Your task to perform on an android device: Open Google Chrome and open the bookmarks view Image 0: 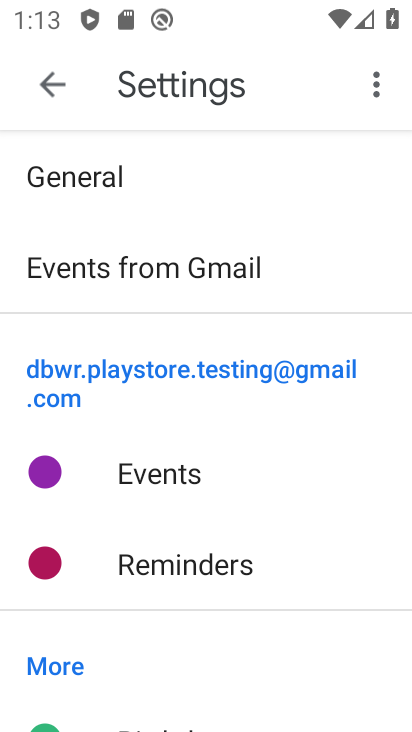
Step 0: press home button
Your task to perform on an android device: Open Google Chrome and open the bookmarks view Image 1: 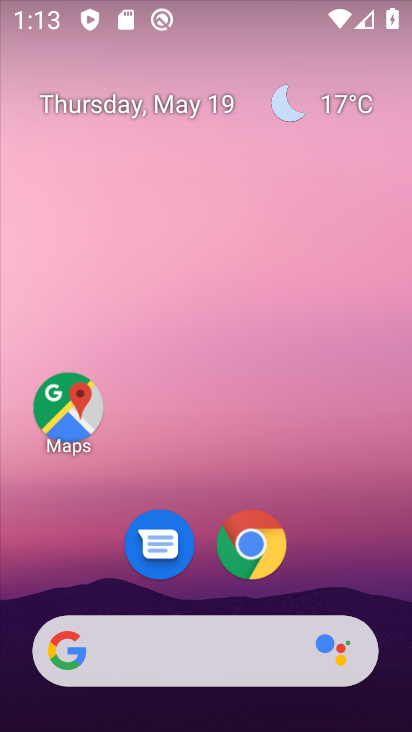
Step 1: click (256, 555)
Your task to perform on an android device: Open Google Chrome and open the bookmarks view Image 2: 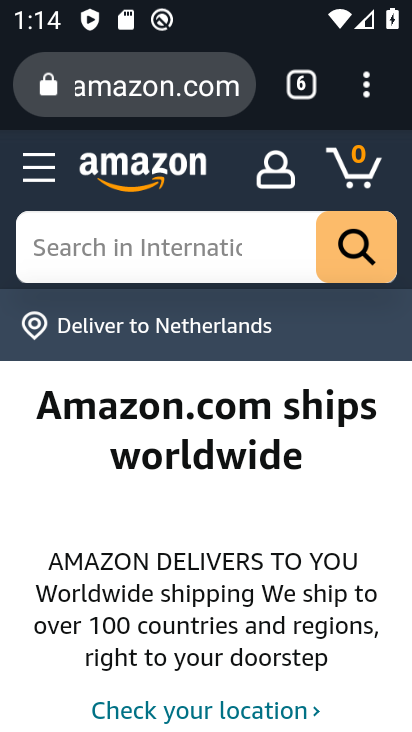
Step 2: click (365, 94)
Your task to perform on an android device: Open Google Chrome and open the bookmarks view Image 3: 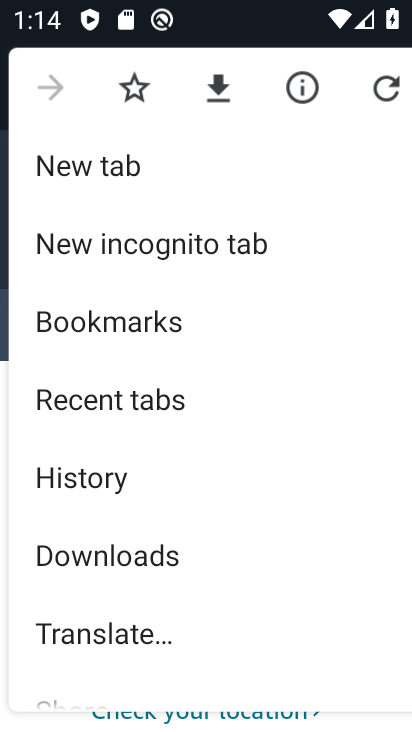
Step 3: click (104, 330)
Your task to perform on an android device: Open Google Chrome and open the bookmarks view Image 4: 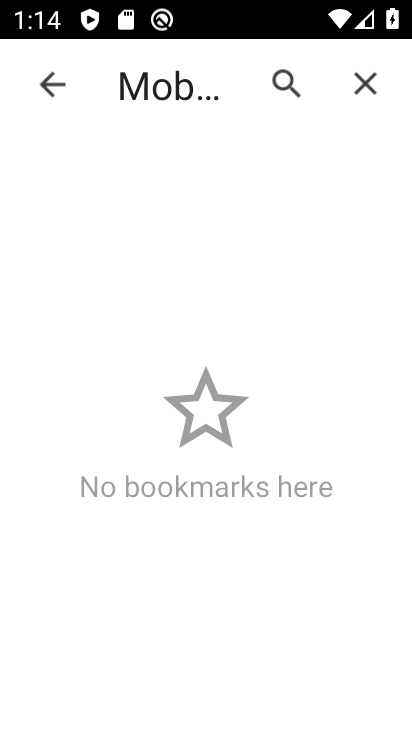
Step 4: task complete